Your task to perform on an android device: check google app version Image 0: 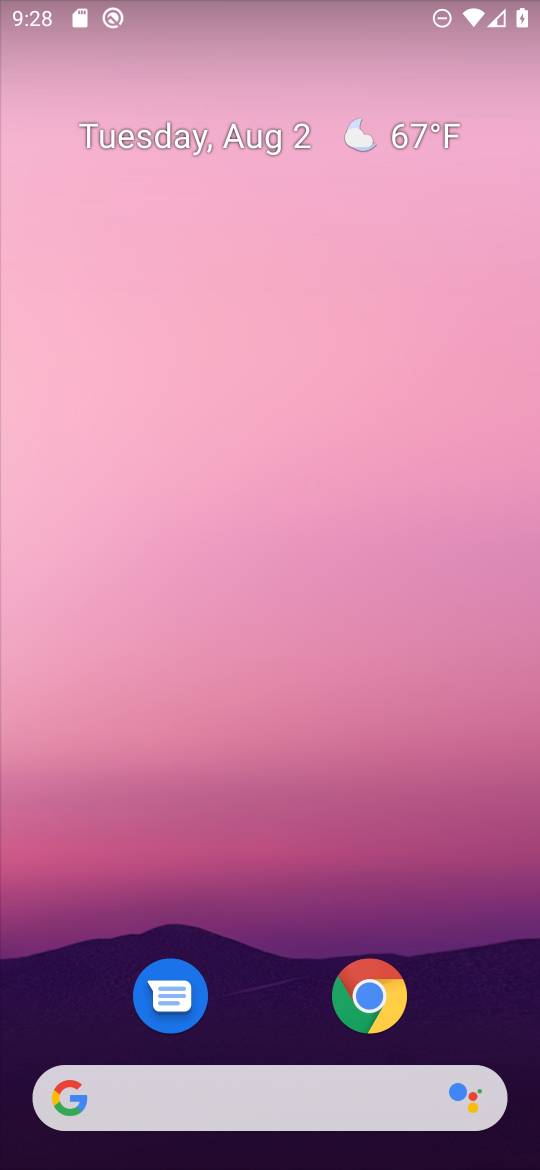
Step 0: drag from (270, 976) to (272, 83)
Your task to perform on an android device: check google app version Image 1: 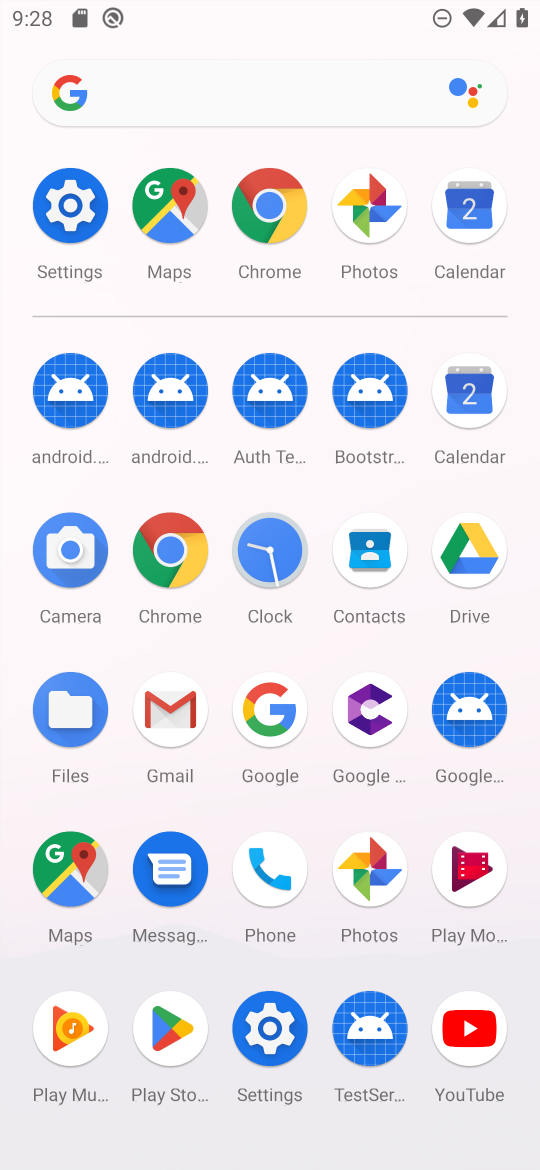
Step 1: click (281, 712)
Your task to perform on an android device: check google app version Image 2: 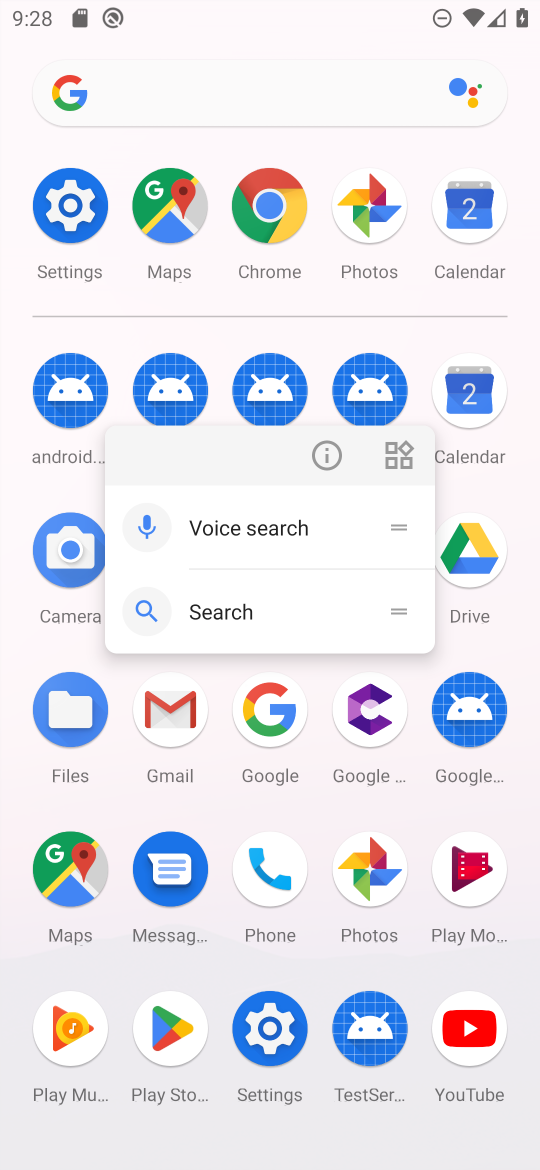
Step 2: click (330, 446)
Your task to perform on an android device: check google app version Image 3: 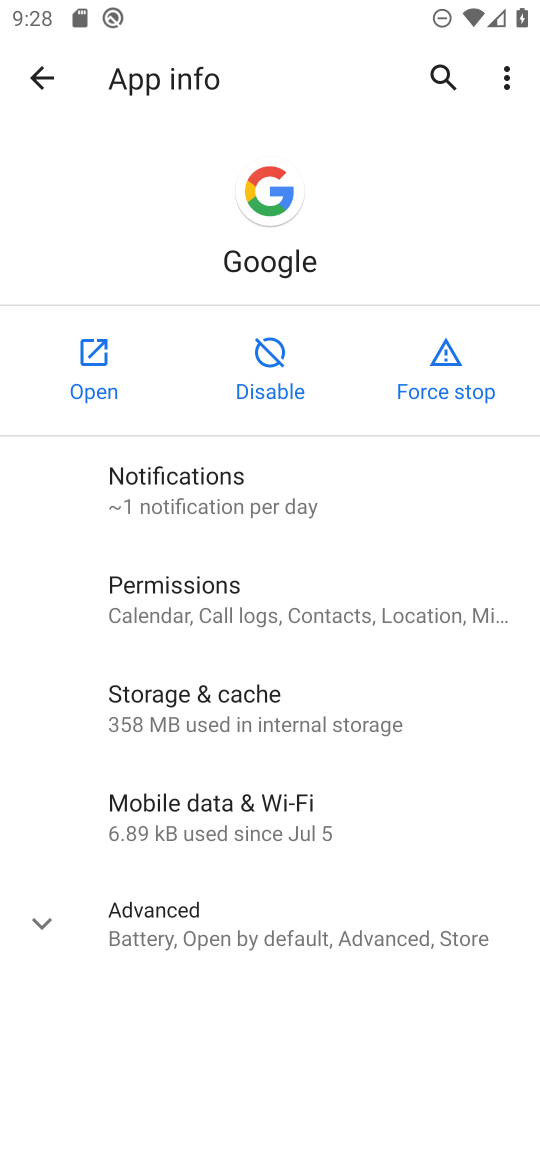
Step 3: click (206, 918)
Your task to perform on an android device: check google app version Image 4: 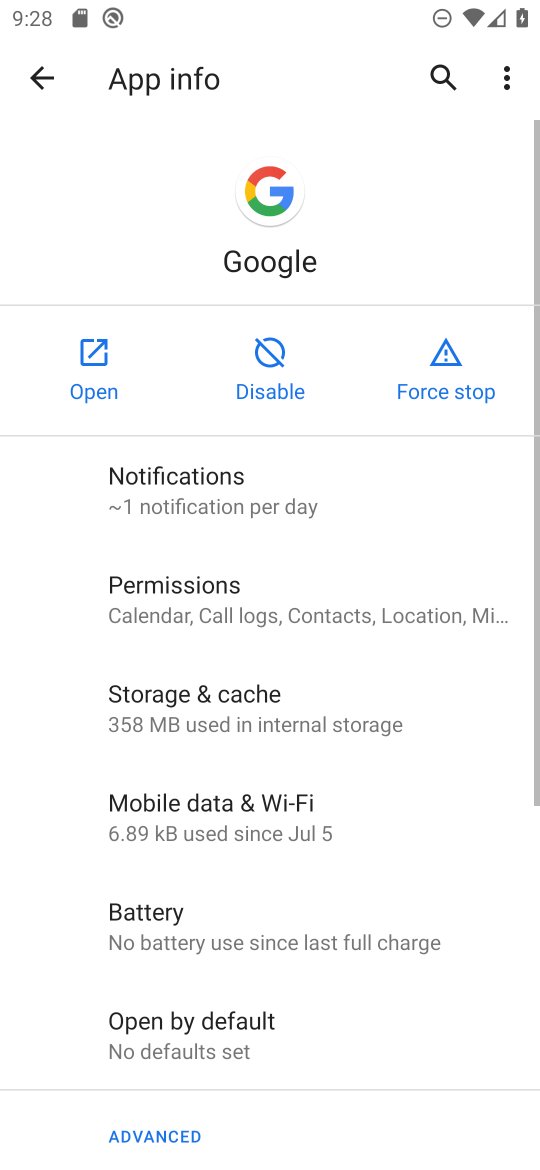
Step 4: task complete